Your task to perform on an android device: Is it going to rain this weekend? Image 0: 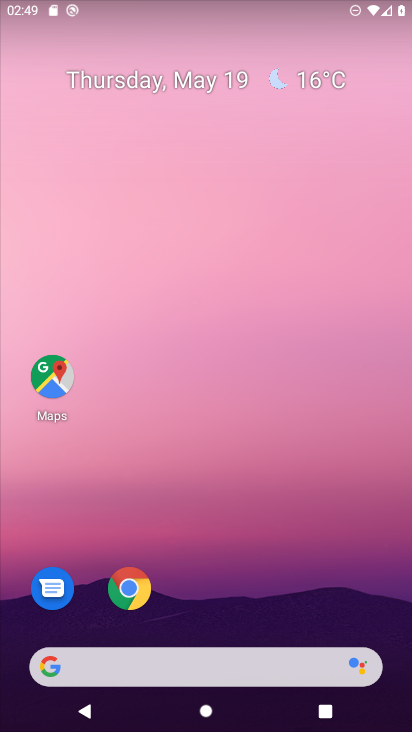
Step 0: click (315, 82)
Your task to perform on an android device: Is it going to rain this weekend? Image 1: 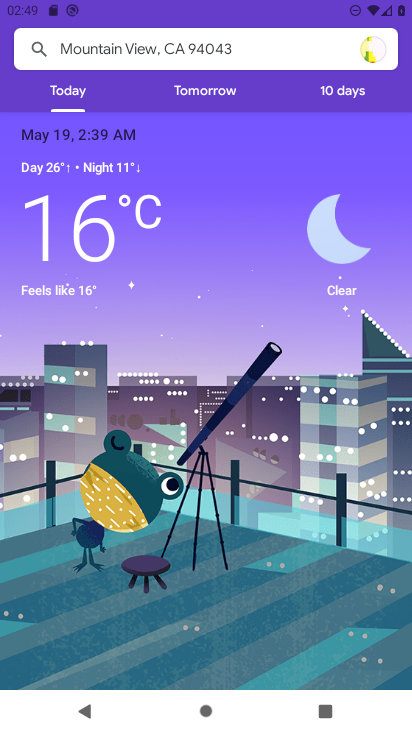
Step 1: click (333, 91)
Your task to perform on an android device: Is it going to rain this weekend? Image 2: 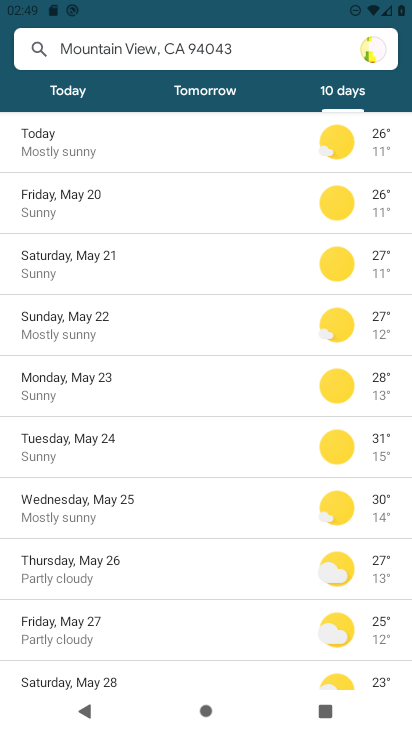
Step 2: task complete